Your task to perform on an android device: visit the assistant section in the google photos Image 0: 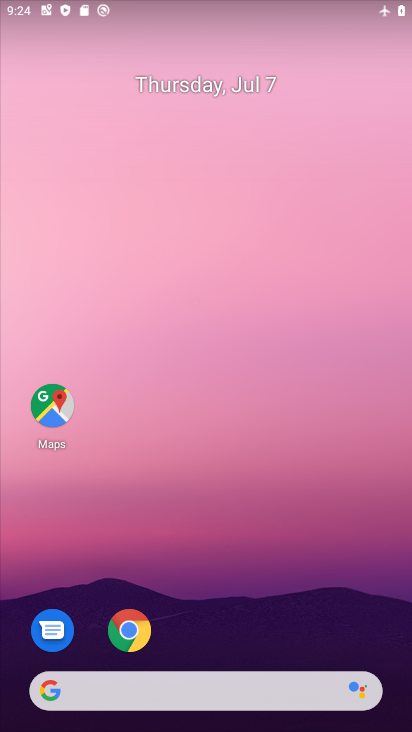
Step 0: drag from (214, 634) to (221, 161)
Your task to perform on an android device: visit the assistant section in the google photos Image 1: 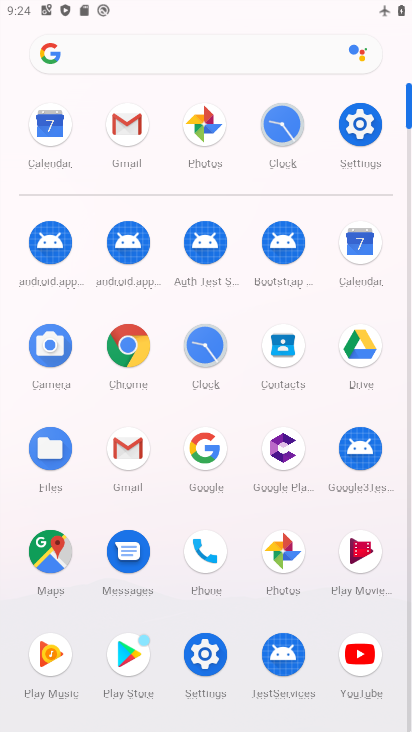
Step 1: click (215, 117)
Your task to perform on an android device: visit the assistant section in the google photos Image 2: 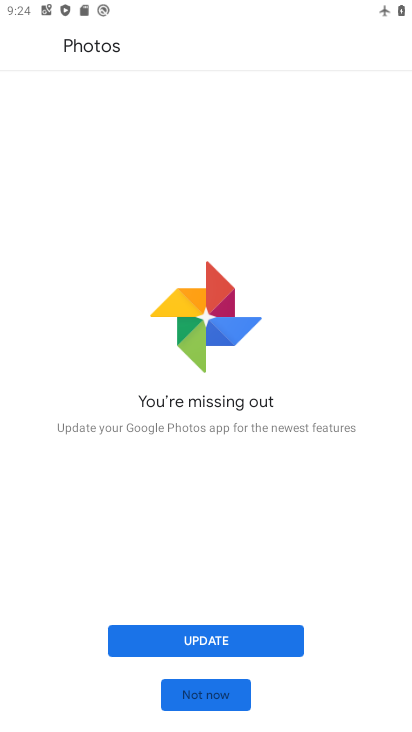
Step 2: click (210, 693)
Your task to perform on an android device: visit the assistant section in the google photos Image 3: 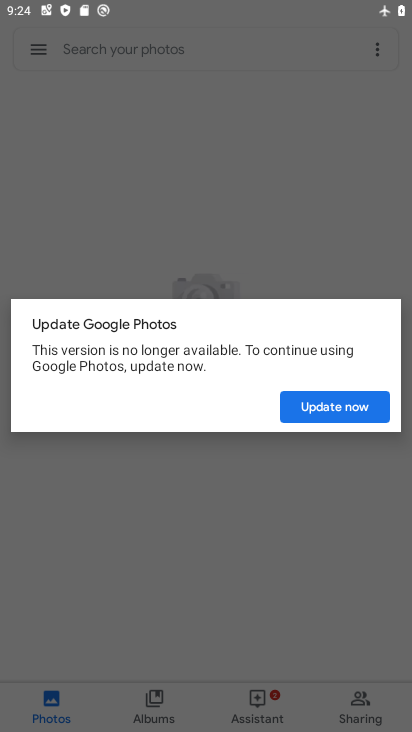
Step 3: click (322, 407)
Your task to perform on an android device: visit the assistant section in the google photos Image 4: 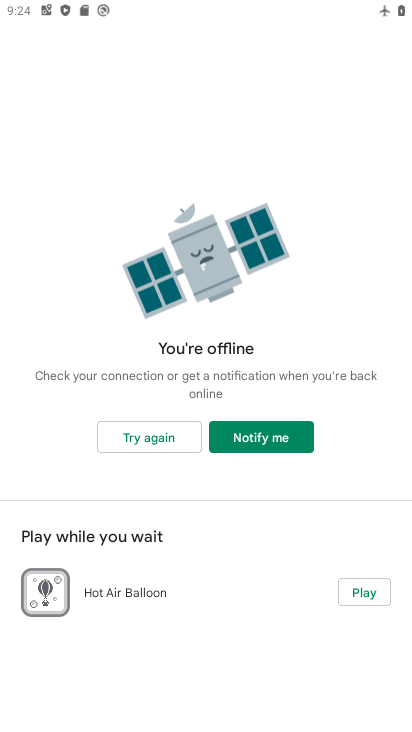
Step 4: task complete